Your task to perform on an android device: turn off location history Image 0: 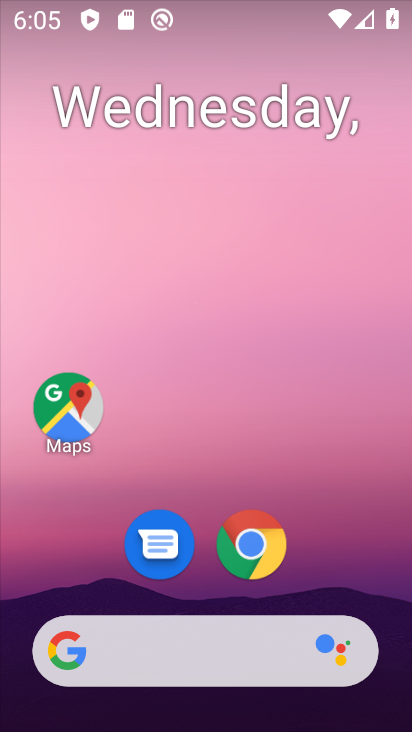
Step 0: click (67, 416)
Your task to perform on an android device: turn off location history Image 1: 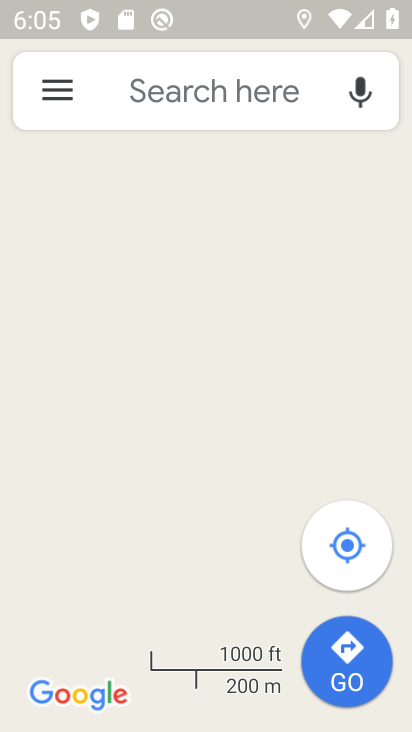
Step 1: click (40, 87)
Your task to perform on an android device: turn off location history Image 2: 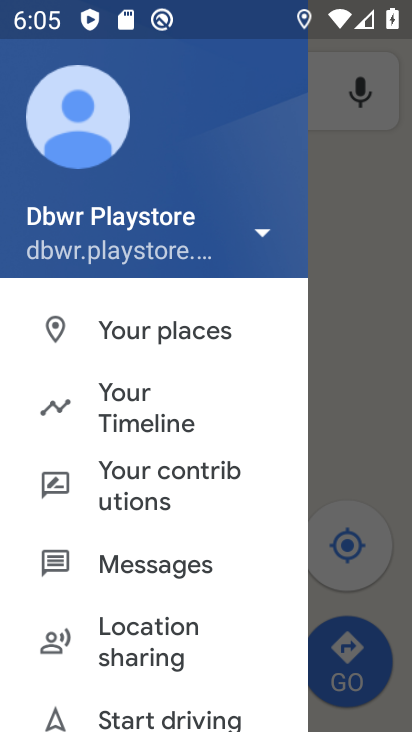
Step 2: click (139, 404)
Your task to perform on an android device: turn off location history Image 3: 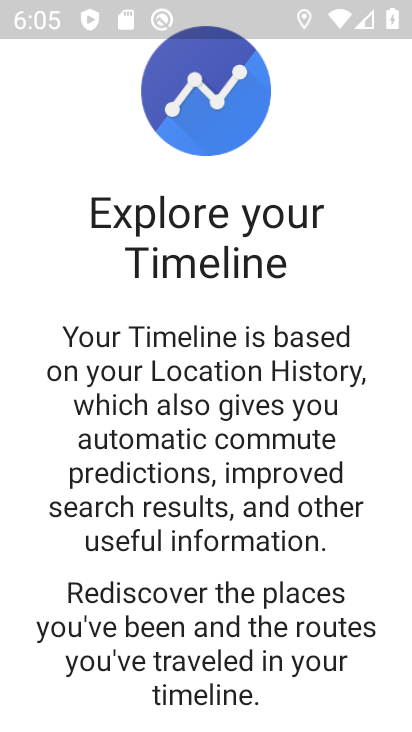
Step 3: drag from (297, 610) to (184, 128)
Your task to perform on an android device: turn off location history Image 4: 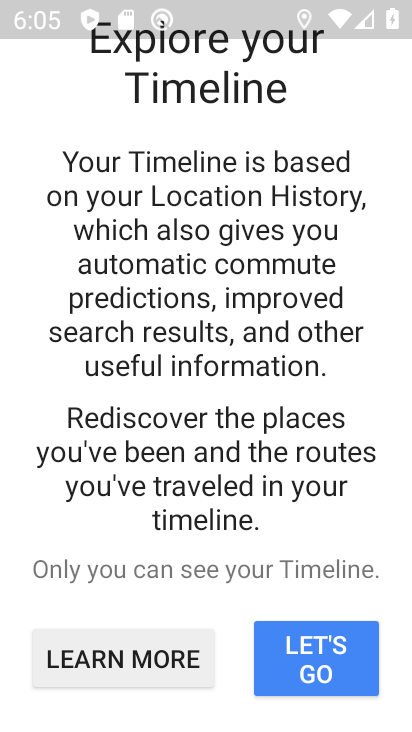
Step 4: click (305, 658)
Your task to perform on an android device: turn off location history Image 5: 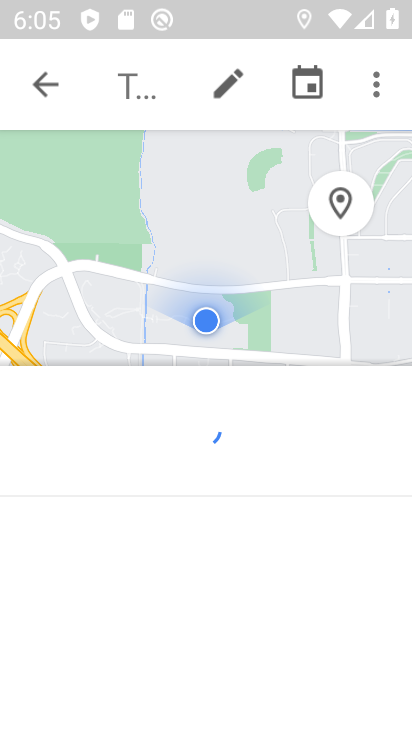
Step 5: click (373, 75)
Your task to perform on an android device: turn off location history Image 6: 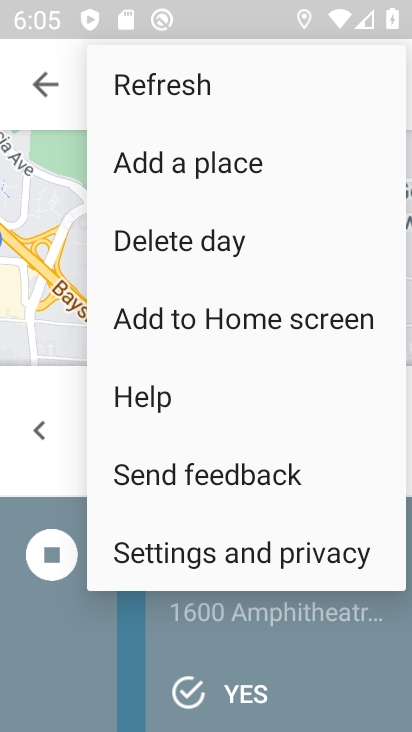
Step 6: click (301, 555)
Your task to perform on an android device: turn off location history Image 7: 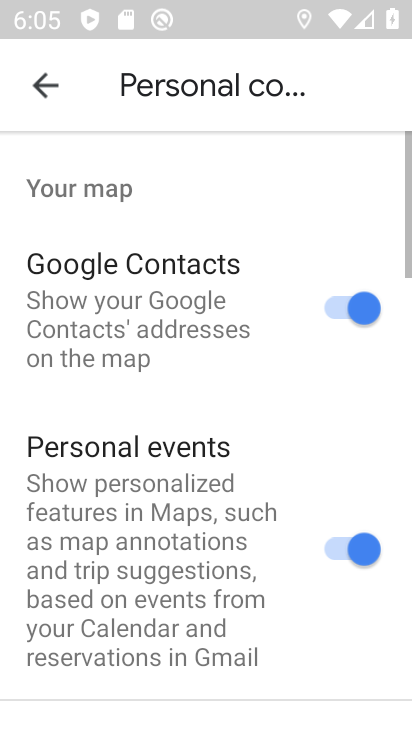
Step 7: drag from (275, 521) to (154, 38)
Your task to perform on an android device: turn off location history Image 8: 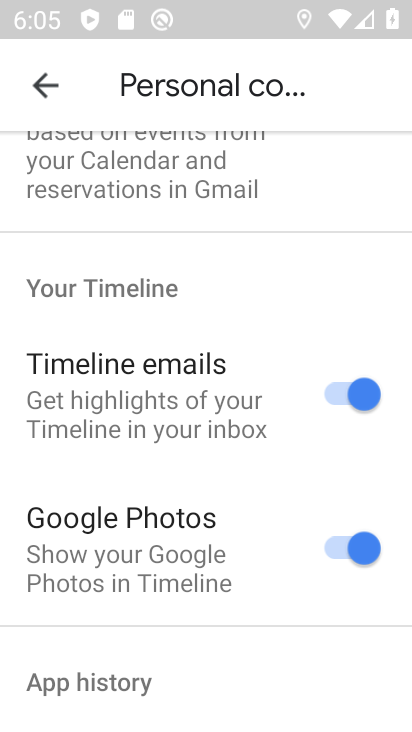
Step 8: drag from (241, 599) to (157, 271)
Your task to perform on an android device: turn off location history Image 9: 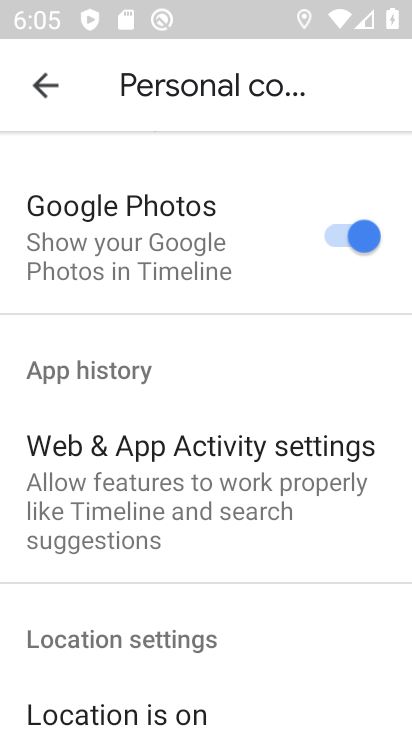
Step 9: drag from (212, 541) to (169, 218)
Your task to perform on an android device: turn off location history Image 10: 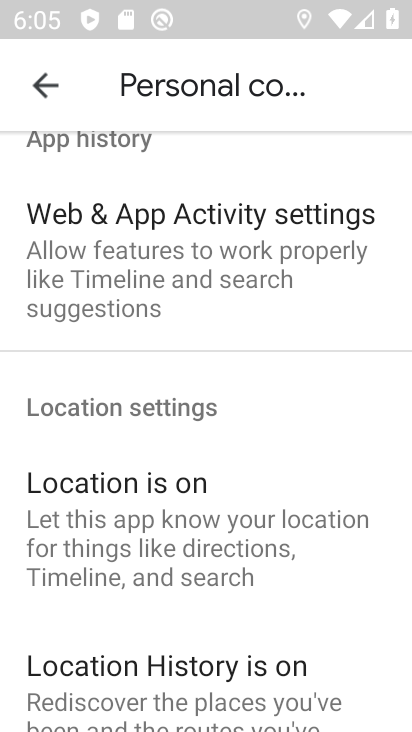
Step 10: drag from (230, 596) to (210, 352)
Your task to perform on an android device: turn off location history Image 11: 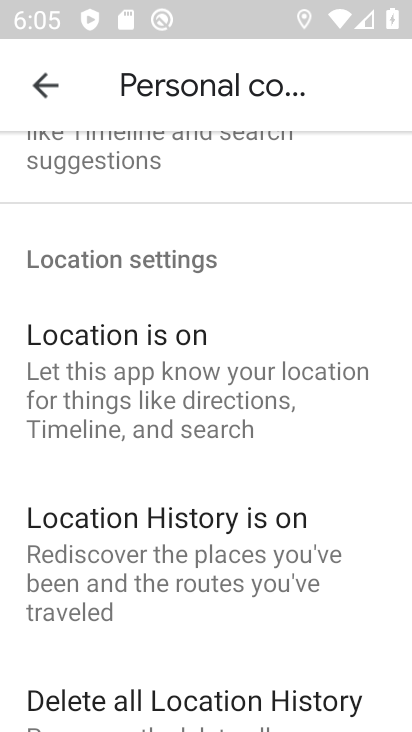
Step 11: click (199, 525)
Your task to perform on an android device: turn off location history Image 12: 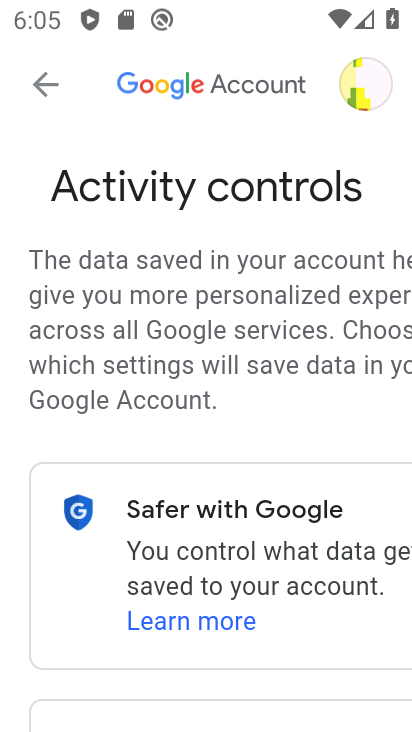
Step 12: drag from (263, 449) to (189, 70)
Your task to perform on an android device: turn off location history Image 13: 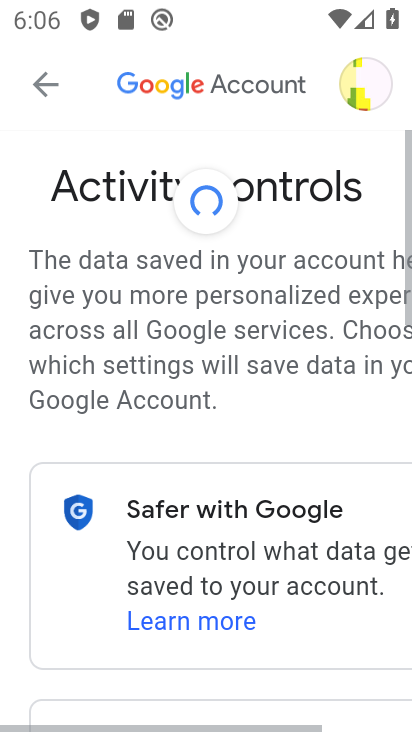
Step 13: drag from (308, 545) to (263, 234)
Your task to perform on an android device: turn off location history Image 14: 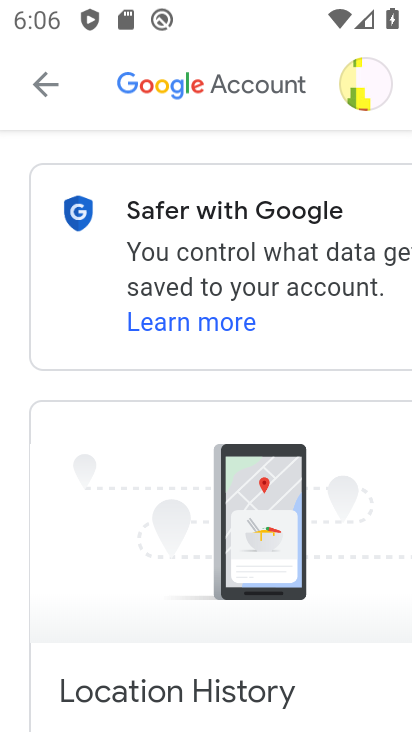
Step 14: drag from (338, 607) to (286, 272)
Your task to perform on an android device: turn off location history Image 15: 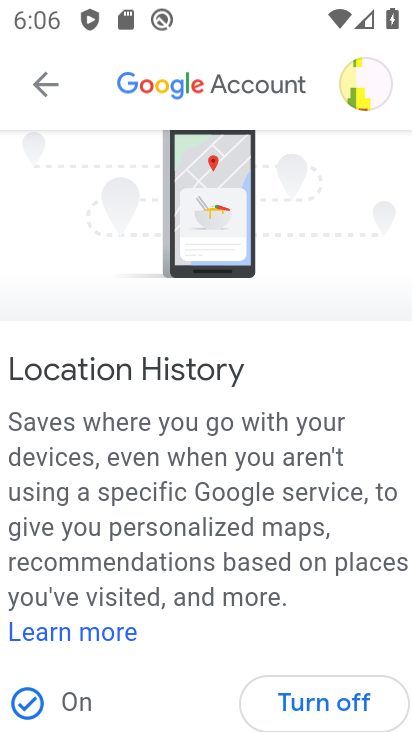
Step 15: drag from (270, 610) to (252, 378)
Your task to perform on an android device: turn off location history Image 16: 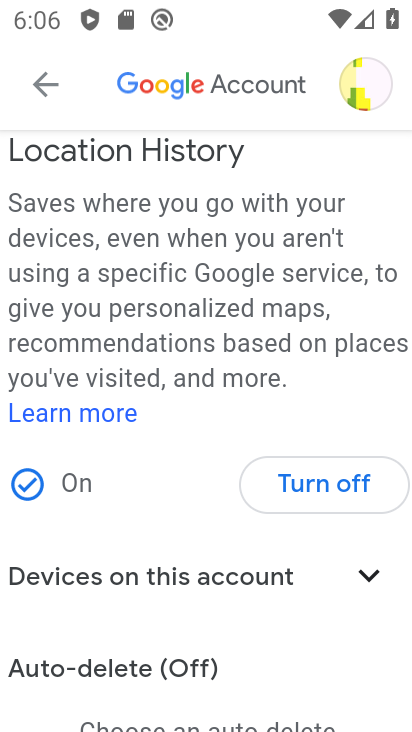
Step 16: click (300, 490)
Your task to perform on an android device: turn off location history Image 17: 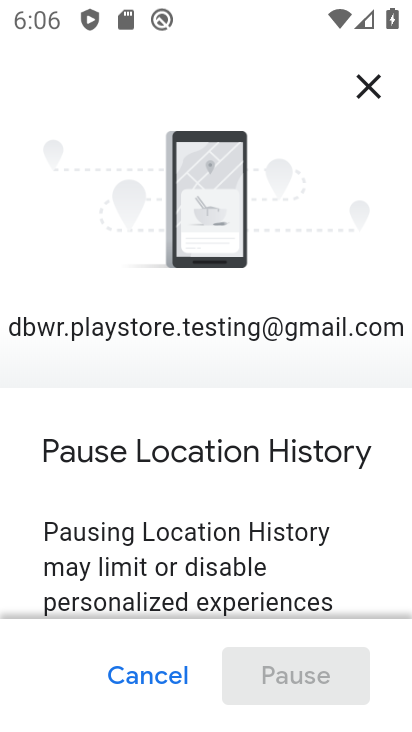
Step 17: drag from (276, 544) to (191, 221)
Your task to perform on an android device: turn off location history Image 18: 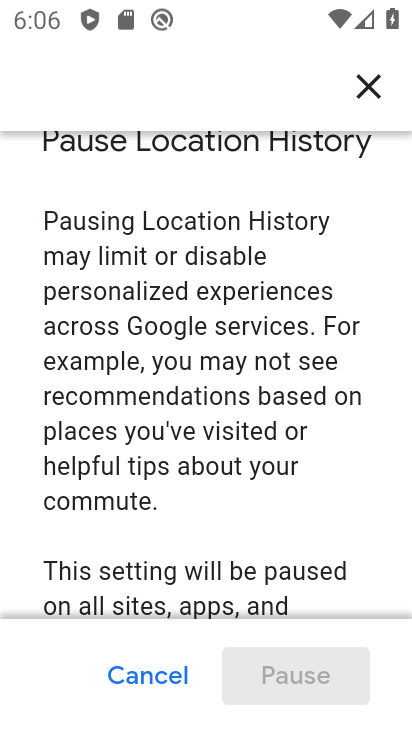
Step 18: drag from (286, 512) to (237, 230)
Your task to perform on an android device: turn off location history Image 19: 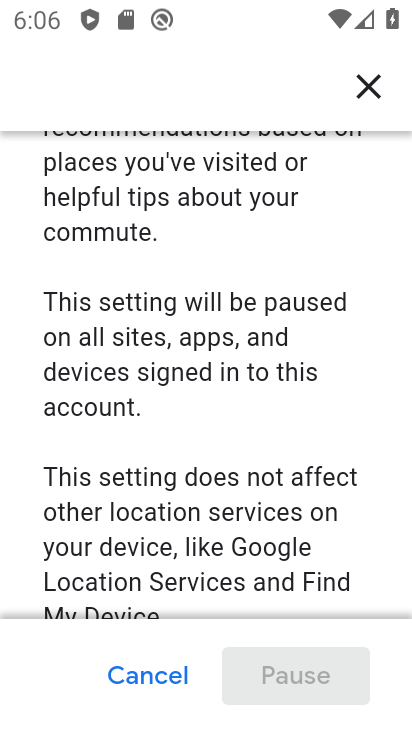
Step 19: drag from (268, 431) to (171, 84)
Your task to perform on an android device: turn off location history Image 20: 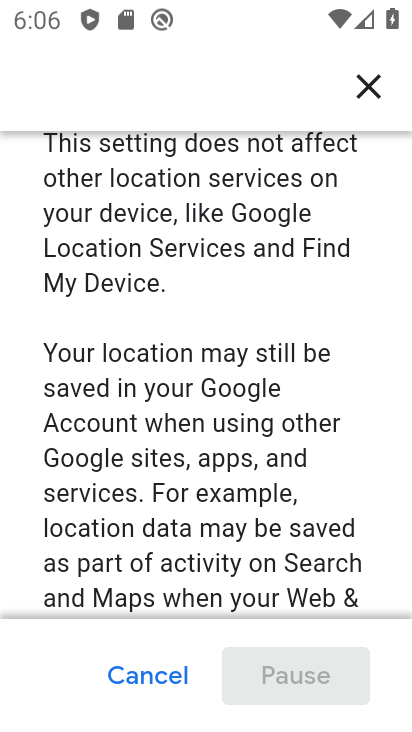
Step 20: drag from (246, 392) to (221, 152)
Your task to perform on an android device: turn off location history Image 21: 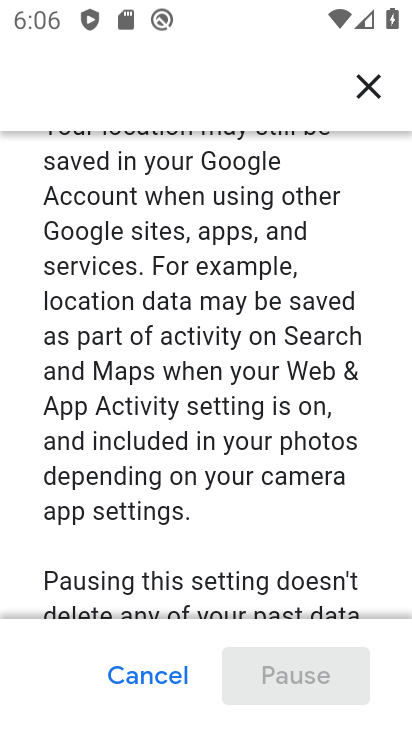
Step 21: drag from (267, 537) to (222, 221)
Your task to perform on an android device: turn off location history Image 22: 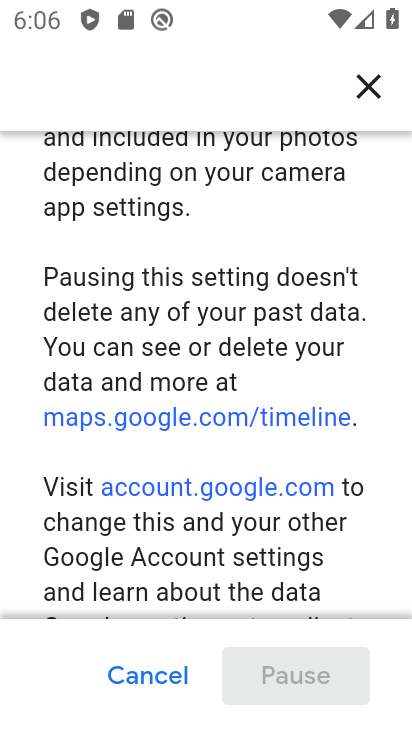
Step 22: drag from (301, 510) to (261, 208)
Your task to perform on an android device: turn off location history Image 23: 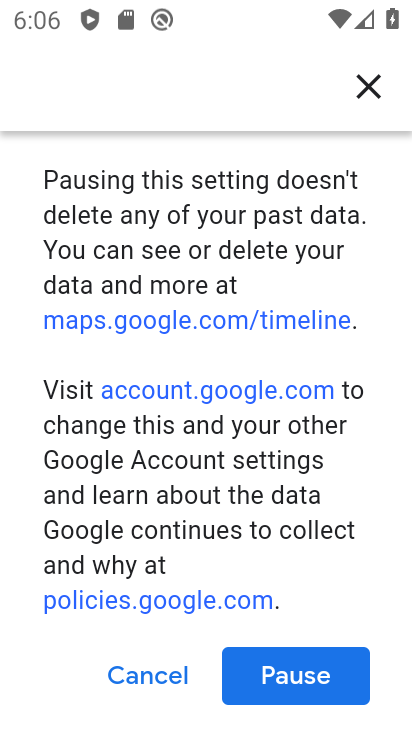
Step 23: click (295, 685)
Your task to perform on an android device: turn off location history Image 24: 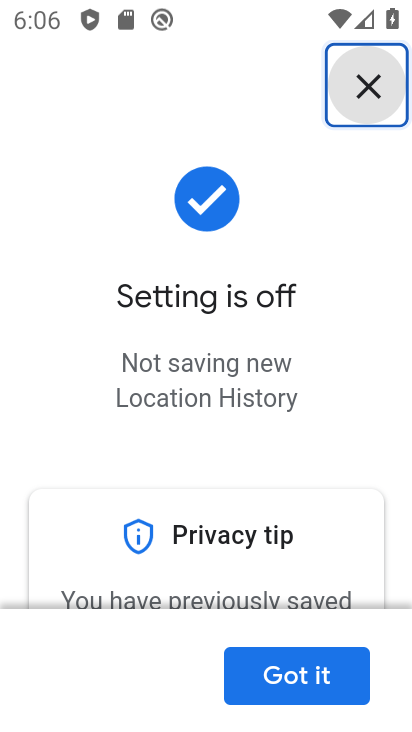
Step 24: click (292, 672)
Your task to perform on an android device: turn off location history Image 25: 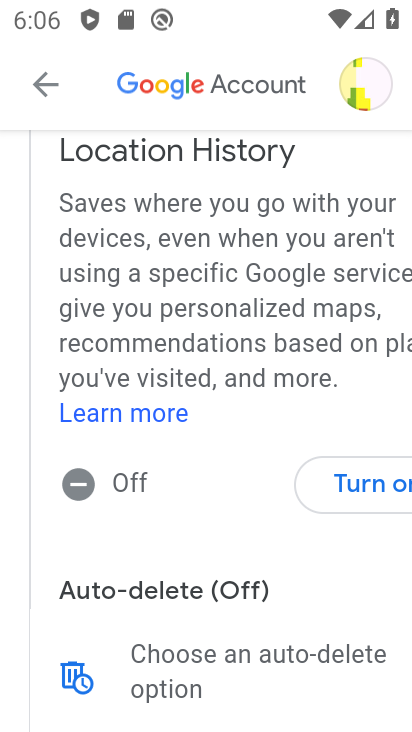
Step 25: task complete